Your task to perform on an android device: turn on bluetooth scan Image 0: 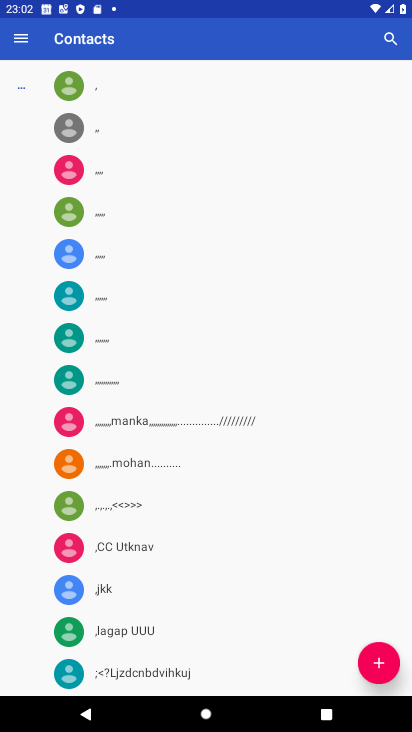
Step 0: press home button
Your task to perform on an android device: turn on bluetooth scan Image 1: 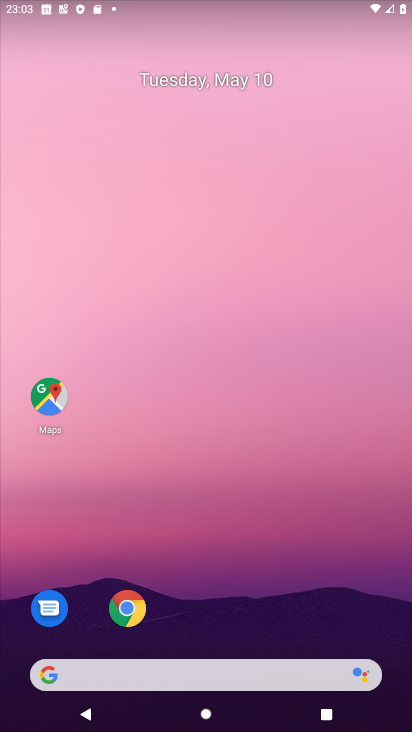
Step 1: drag from (184, 608) to (202, 260)
Your task to perform on an android device: turn on bluetooth scan Image 2: 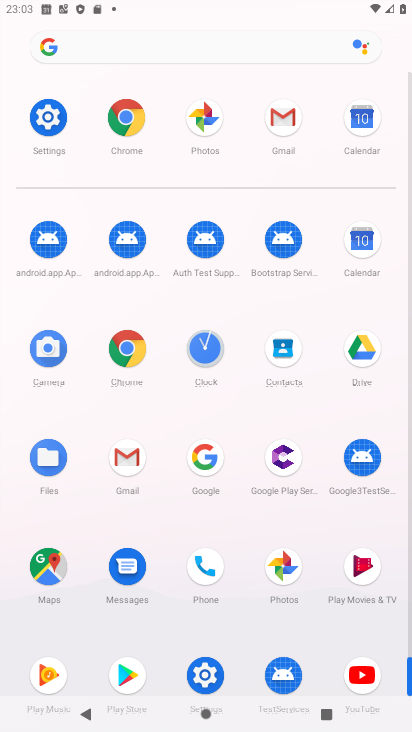
Step 2: click (52, 106)
Your task to perform on an android device: turn on bluetooth scan Image 3: 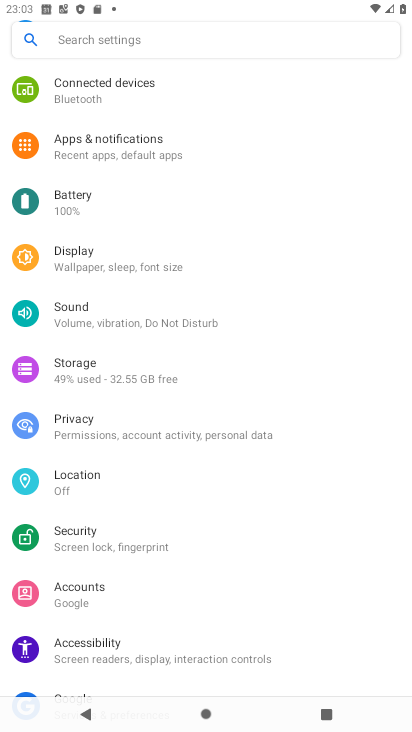
Step 3: click (160, 33)
Your task to perform on an android device: turn on bluetooth scan Image 4: 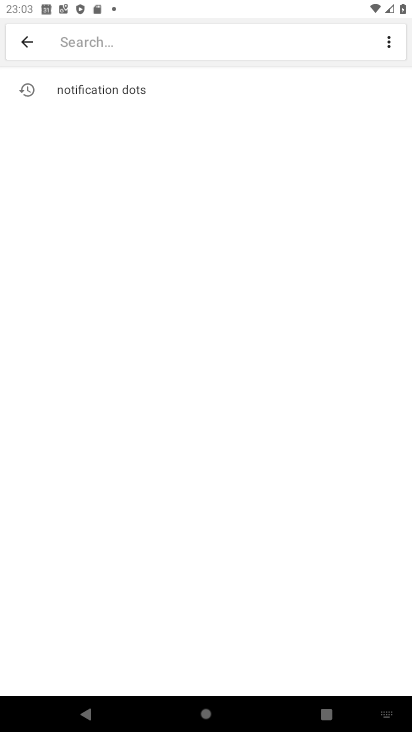
Step 4: click (409, 731)
Your task to perform on an android device: turn on bluetooth scan Image 5: 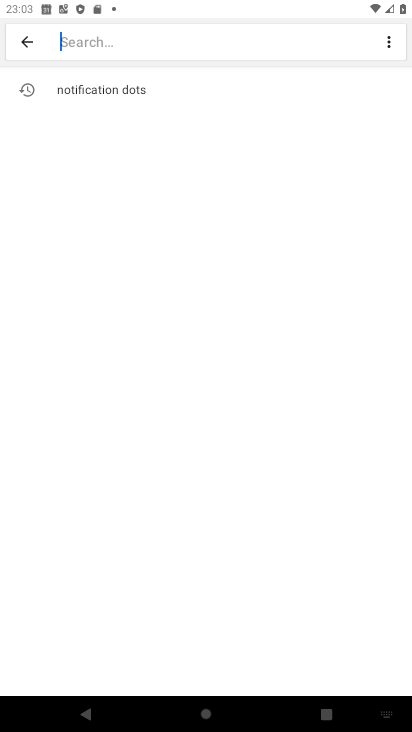
Step 5: click (191, 37)
Your task to perform on an android device: turn on bluetooth scan Image 6: 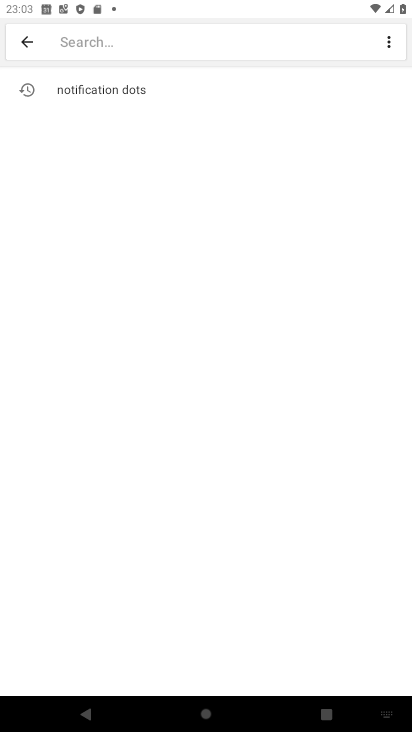
Step 6: type "bluetooth scan"
Your task to perform on an android device: turn on bluetooth scan Image 7: 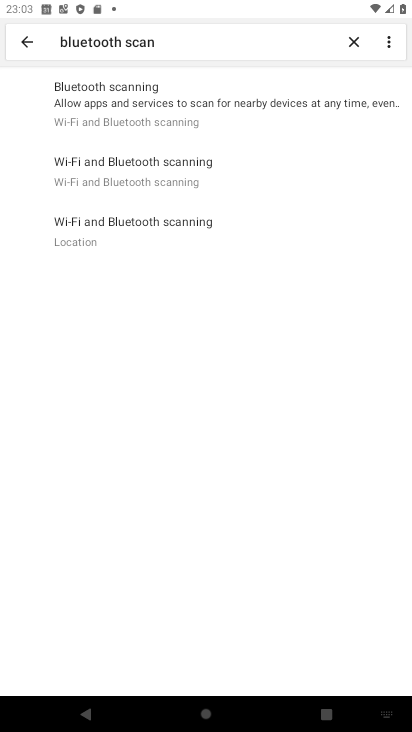
Step 7: click (173, 105)
Your task to perform on an android device: turn on bluetooth scan Image 8: 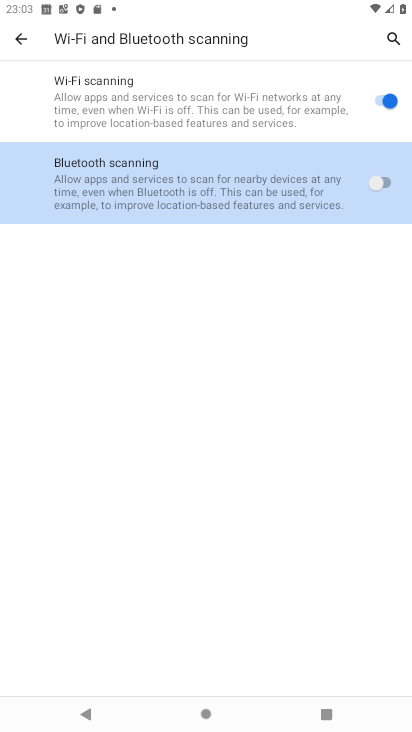
Step 8: click (386, 175)
Your task to perform on an android device: turn on bluetooth scan Image 9: 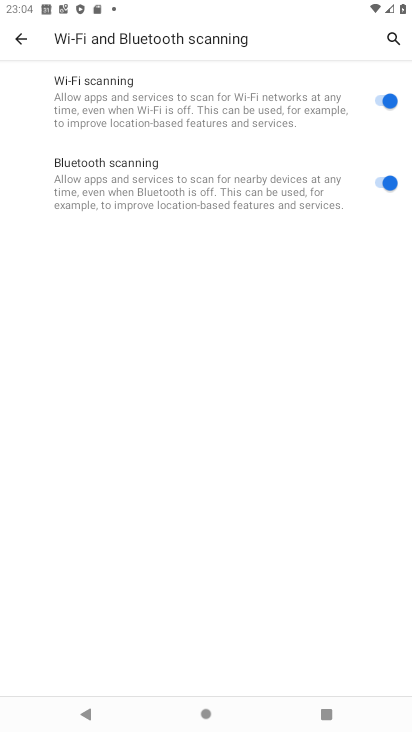
Step 9: task complete